Your task to perform on an android device: turn notification dots off Image 0: 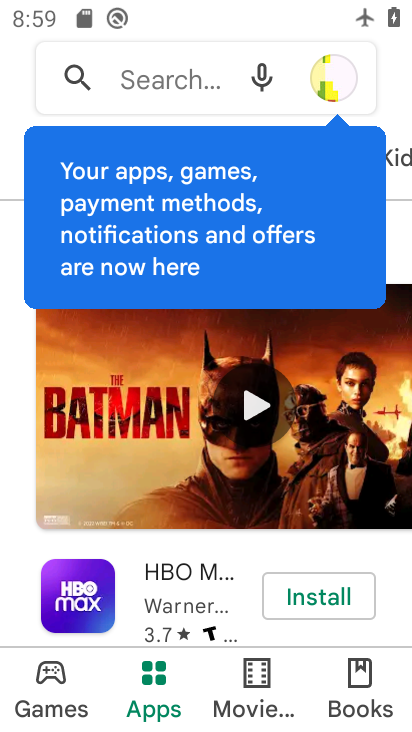
Step 0: drag from (231, 582) to (259, 237)
Your task to perform on an android device: turn notification dots off Image 1: 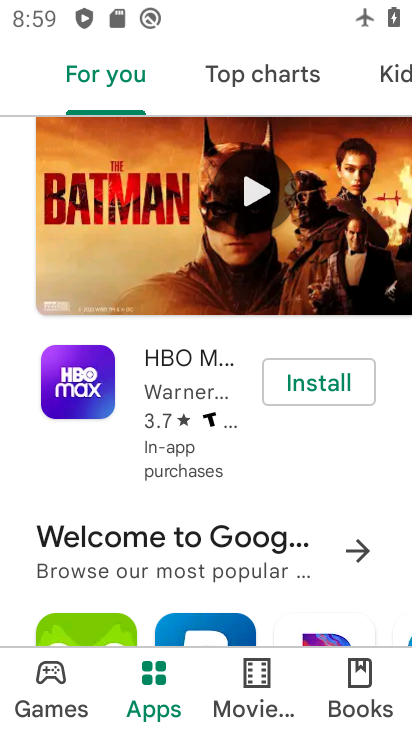
Step 1: drag from (306, 161) to (312, 542)
Your task to perform on an android device: turn notification dots off Image 2: 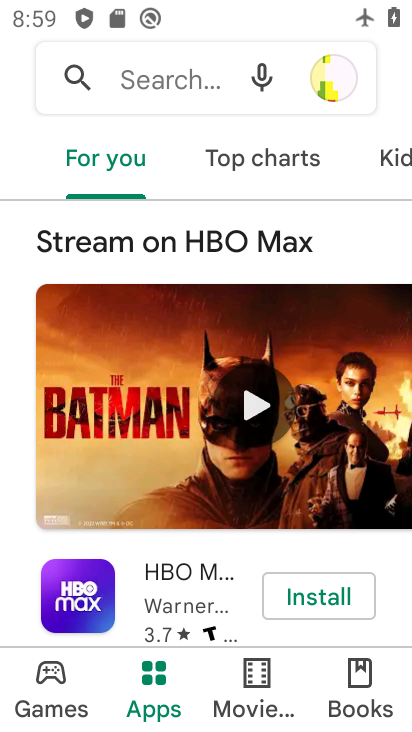
Step 2: press home button
Your task to perform on an android device: turn notification dots off Image 3: 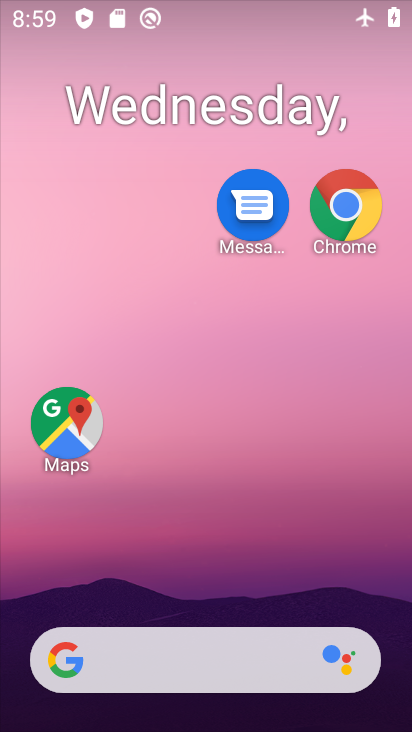
Step 3: drag from (240, 418) to (13, 0)
Your task to perform on an android device: turn notification dots off Image 4: 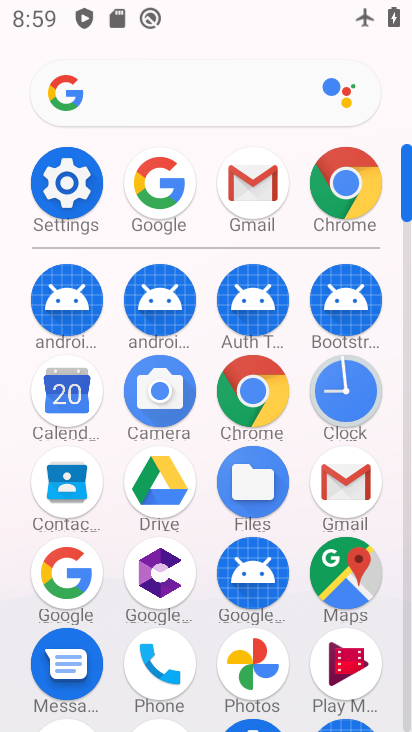
Step 4: click (73, 189)
Your task to perform on an android device: turn notification dots off Image 5: 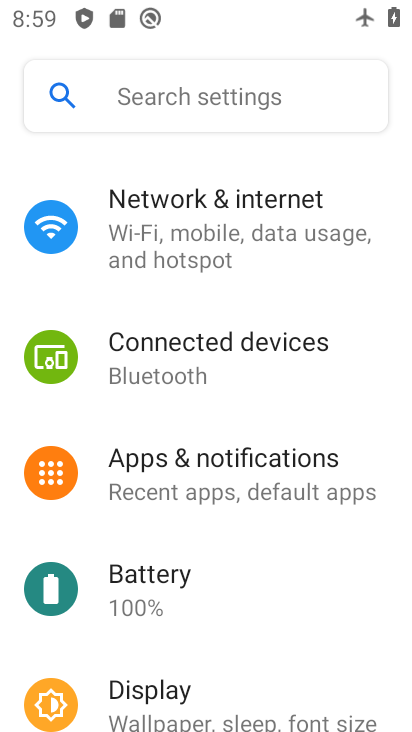
Step 5: click (188, 464)
Your task to perform on an android device: turn notification dots off Image 6: 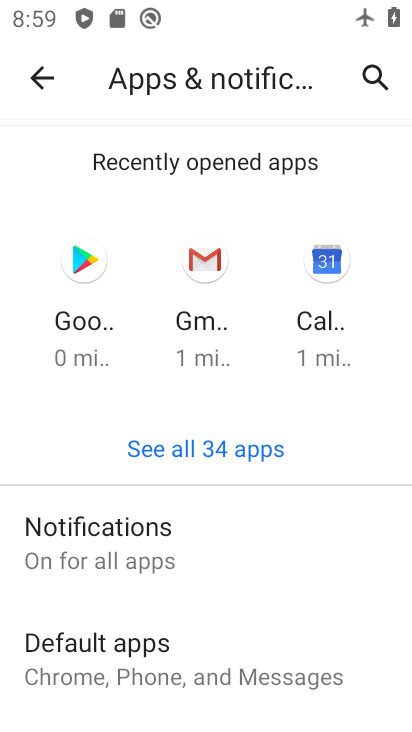
Step 6: click (179, 552)
Your task to perform on an android device: turn notification dots off Image 7: 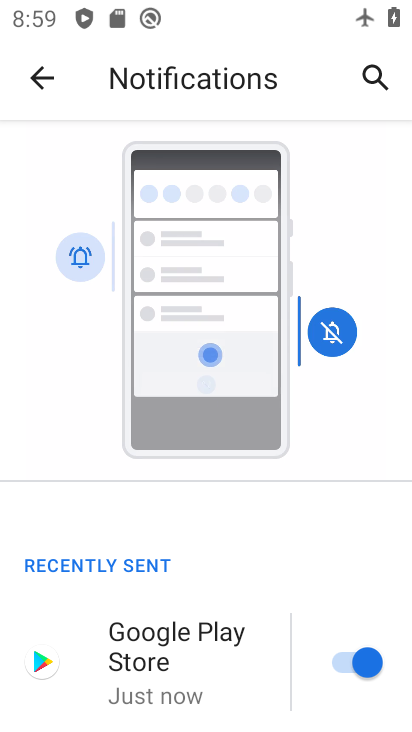
Step 7: drag from (222, 623) to (409, 204)
Your task to perform on an android device: turn notification dots off Image 8: 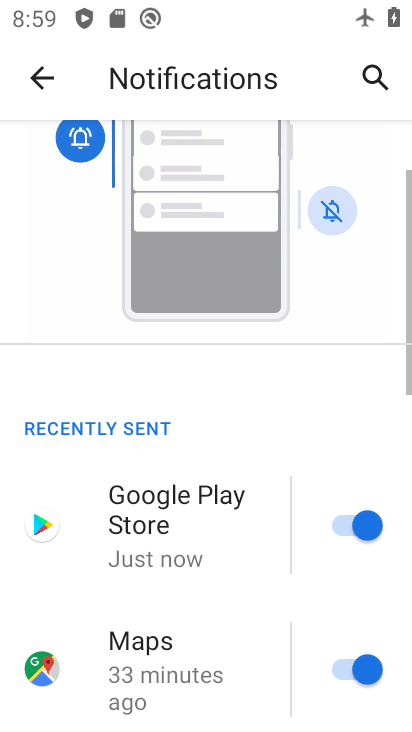
Step 8: drag from (156, 605) to (332, 24)
Your task to perform on an android device: turn notification dots off Image 9: 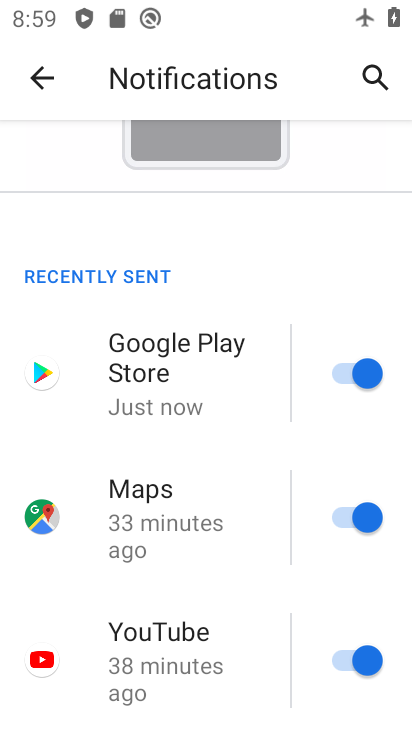
Step 9: drag from (211, 547) to (285, 115)
Your task to perform on an android device: turn notification dots off Image 10: 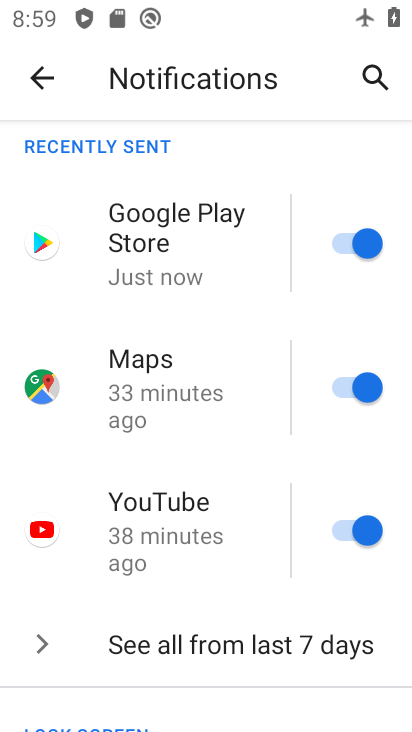
Step 10: drag from (228, 590) to (286, 276)
Your task to perform on an android device: turn notification dots off Image 11: 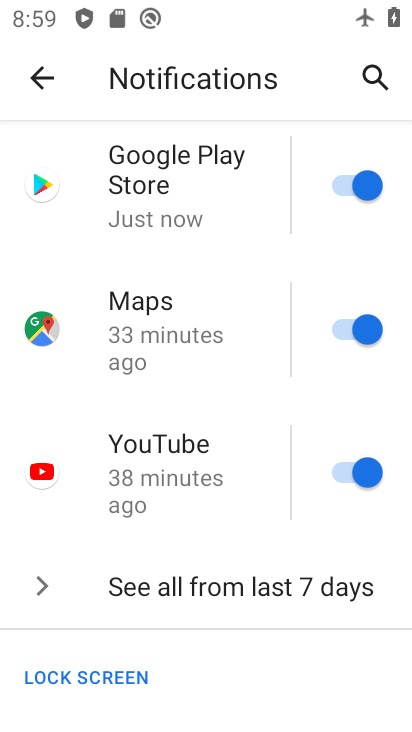
Step 11: drag from (189, 597) to (302, 142)
Your task to perform on an android device: turn notification dots off Image 12: 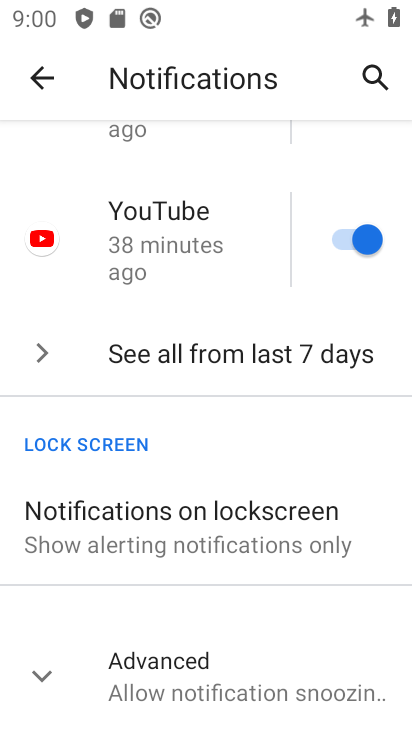
Step 12: click (160, 653)
Your task to perform on an android device: turn notification dots off Image 13: 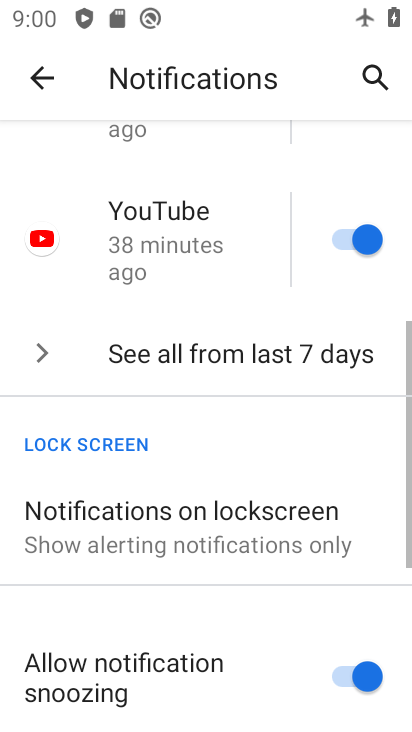
Step 13: task complete